Your task to perform on an android device: install app "WhatsApp Messenger" Image 0: 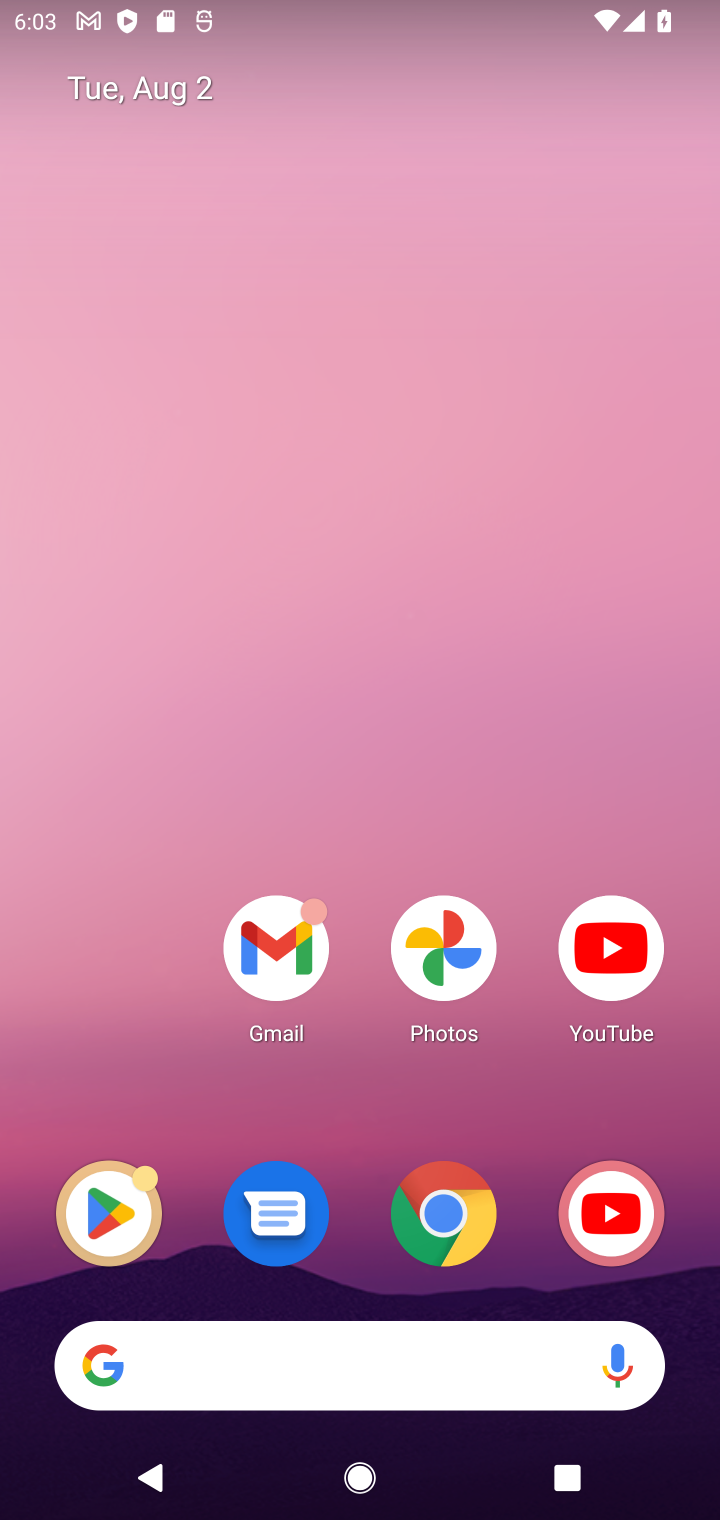
Step 0: click (142, 1202)
Your task to perform on an android device: install app "WhatsApp Messenger" Image 1: 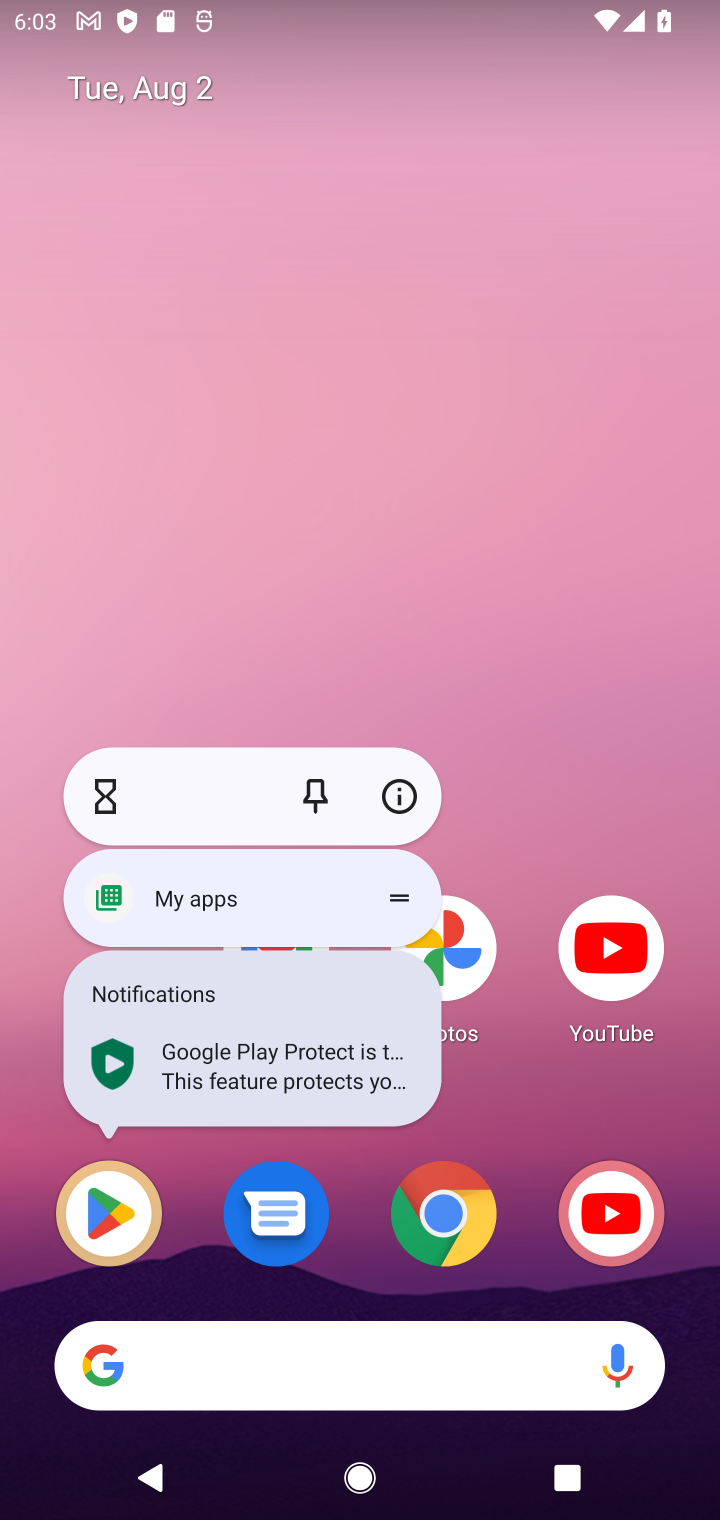
Step 1: click (142, 1202)
Your task to perform on an android device: install app "WhatsApp Messenger" Image 2: 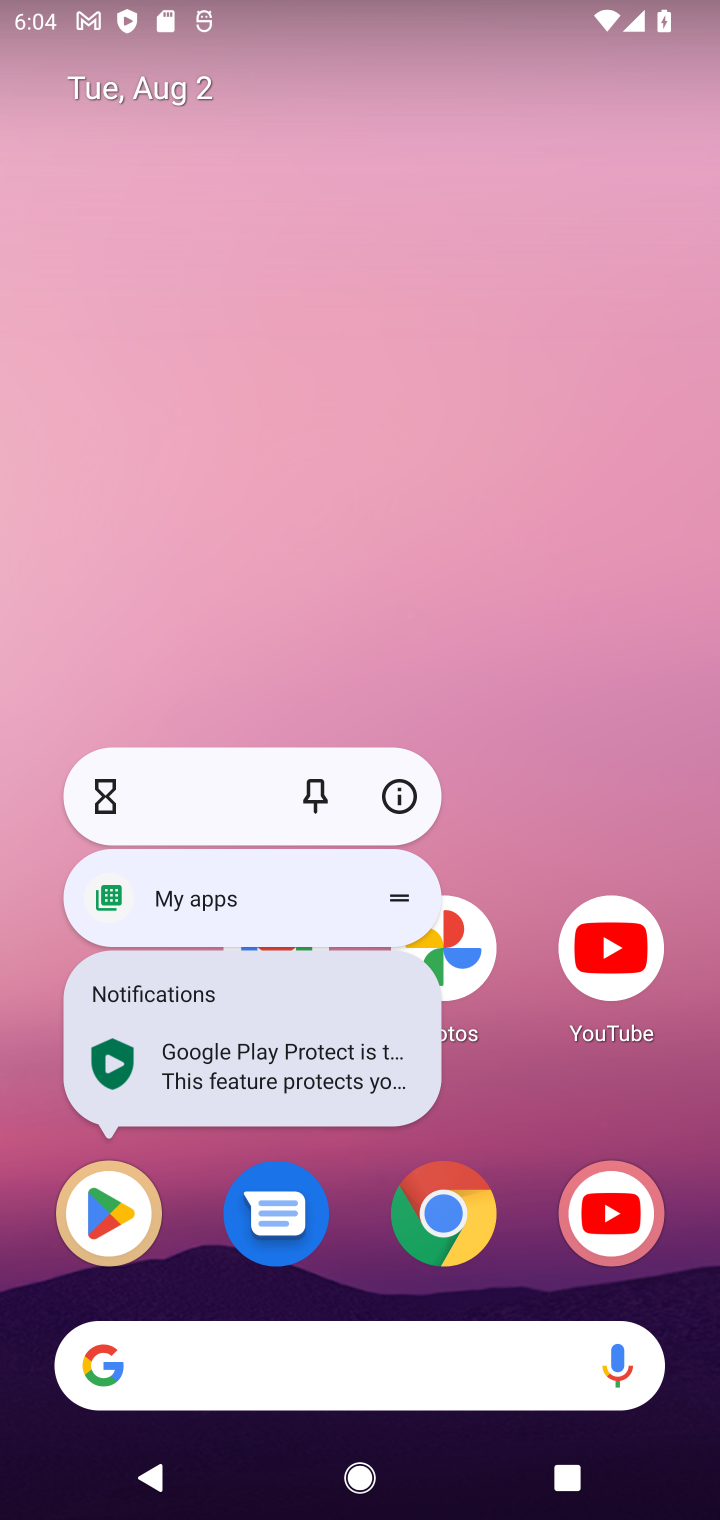
Step 2: click (63, 1216)
Your task to perform on an android device: install app "WhatsApp Messenger" Image 3: 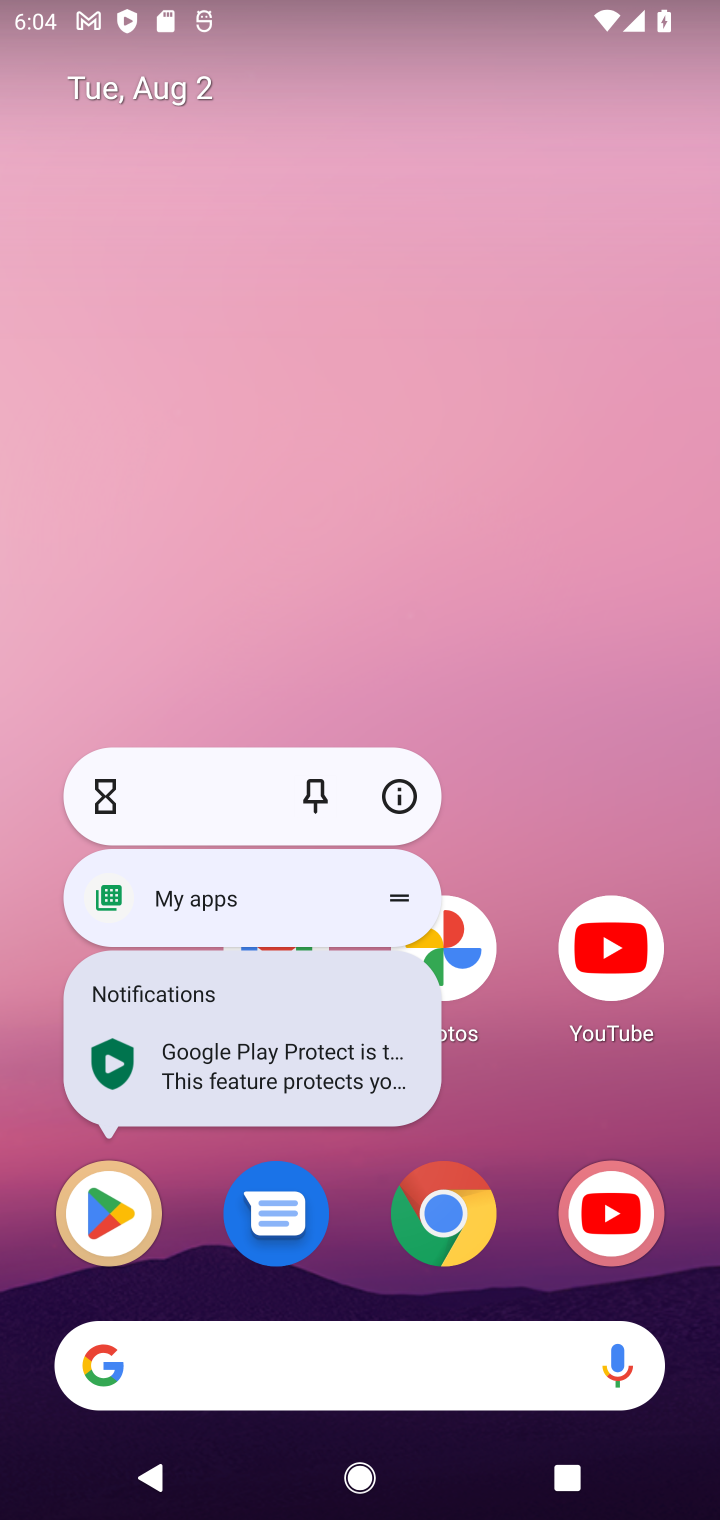
Step 3: click (136, 1231)
Your task to perform on an android device: install app "WhatsApp Messenger" Image 4: 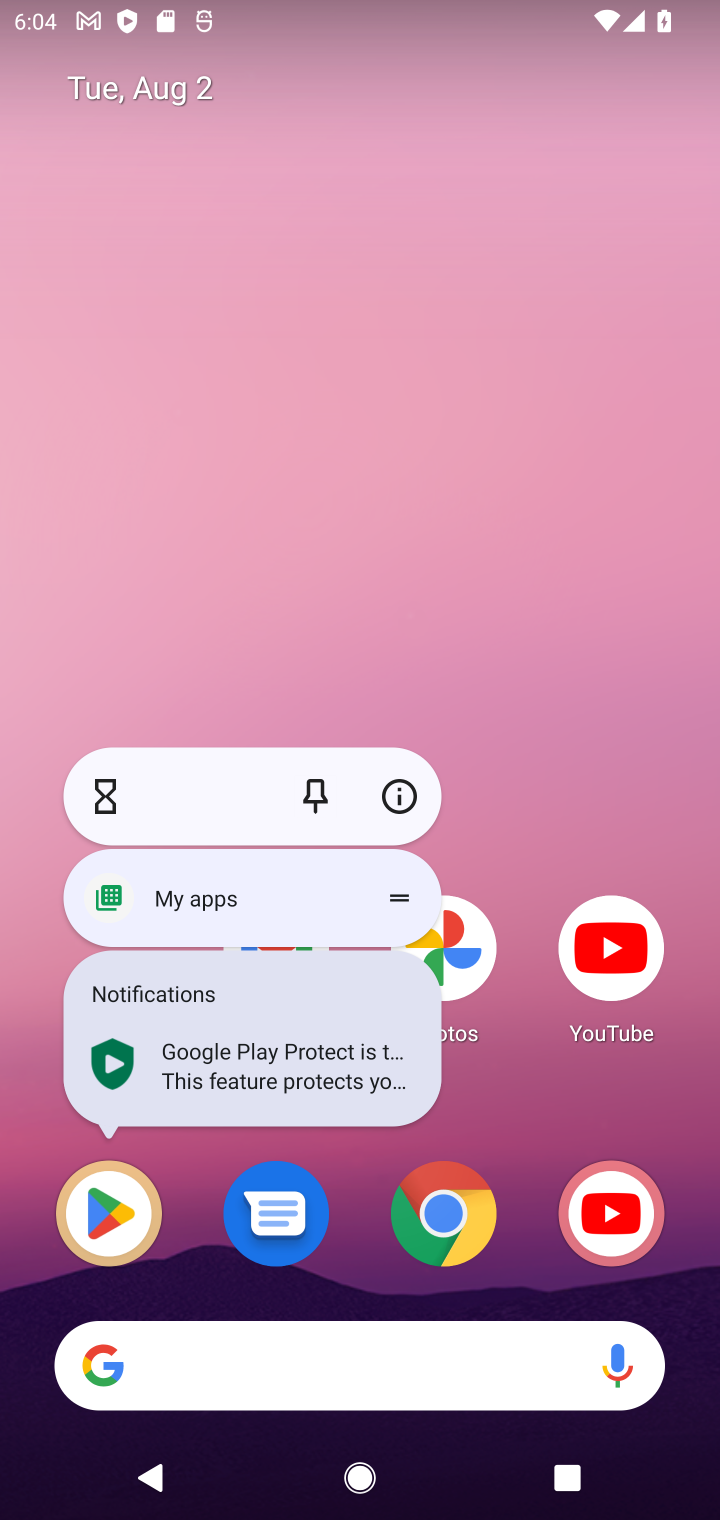
Step 4: click (127, 1223)
Your task to perform on an android device: install app "WhatsApp Messenger" Image 5: 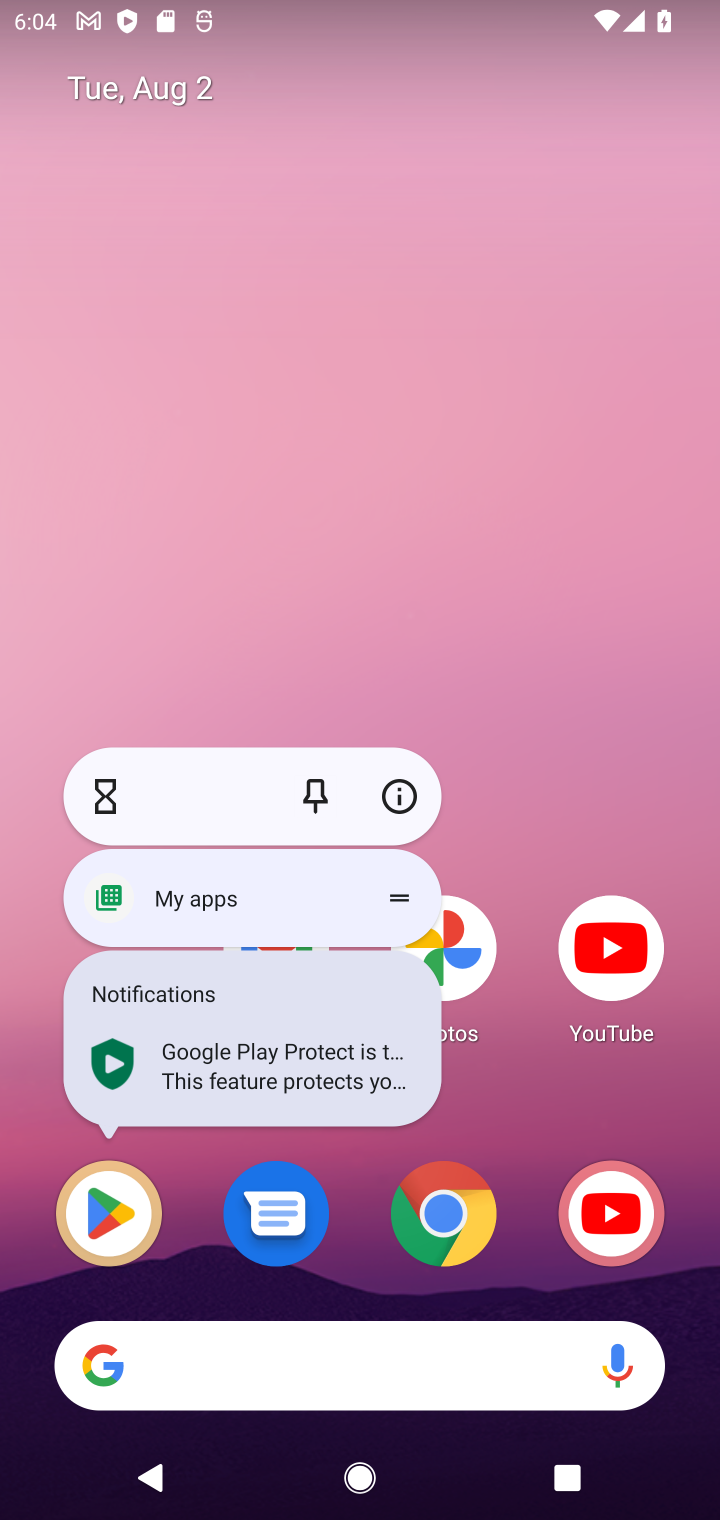
Step 5: click (116, 1247)
Your task to perform on an android device: install app "WhatsApp Messenger" Image 6: 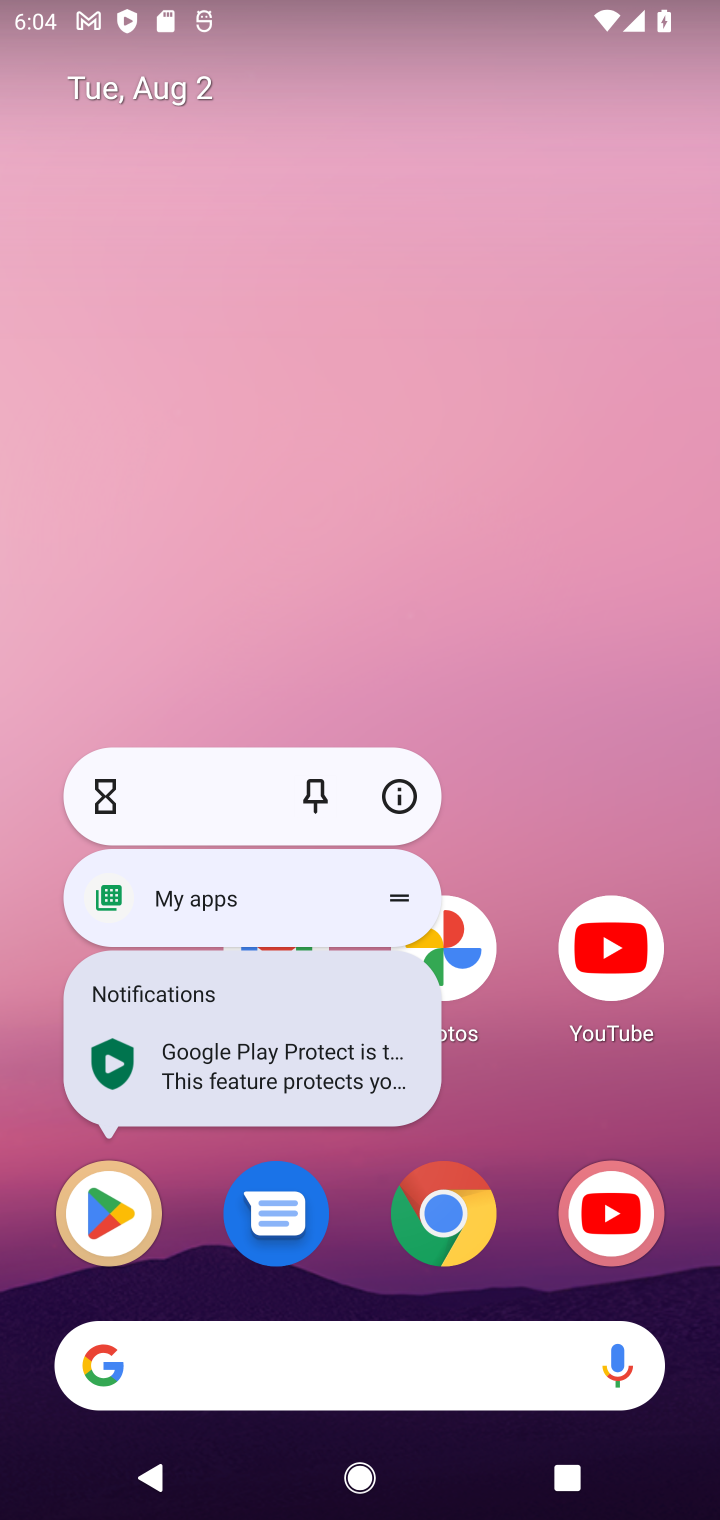
Step 6: click (65, 1205)
Your task to perform on an android device: install app "WhatsApp Messenger" Image 7: 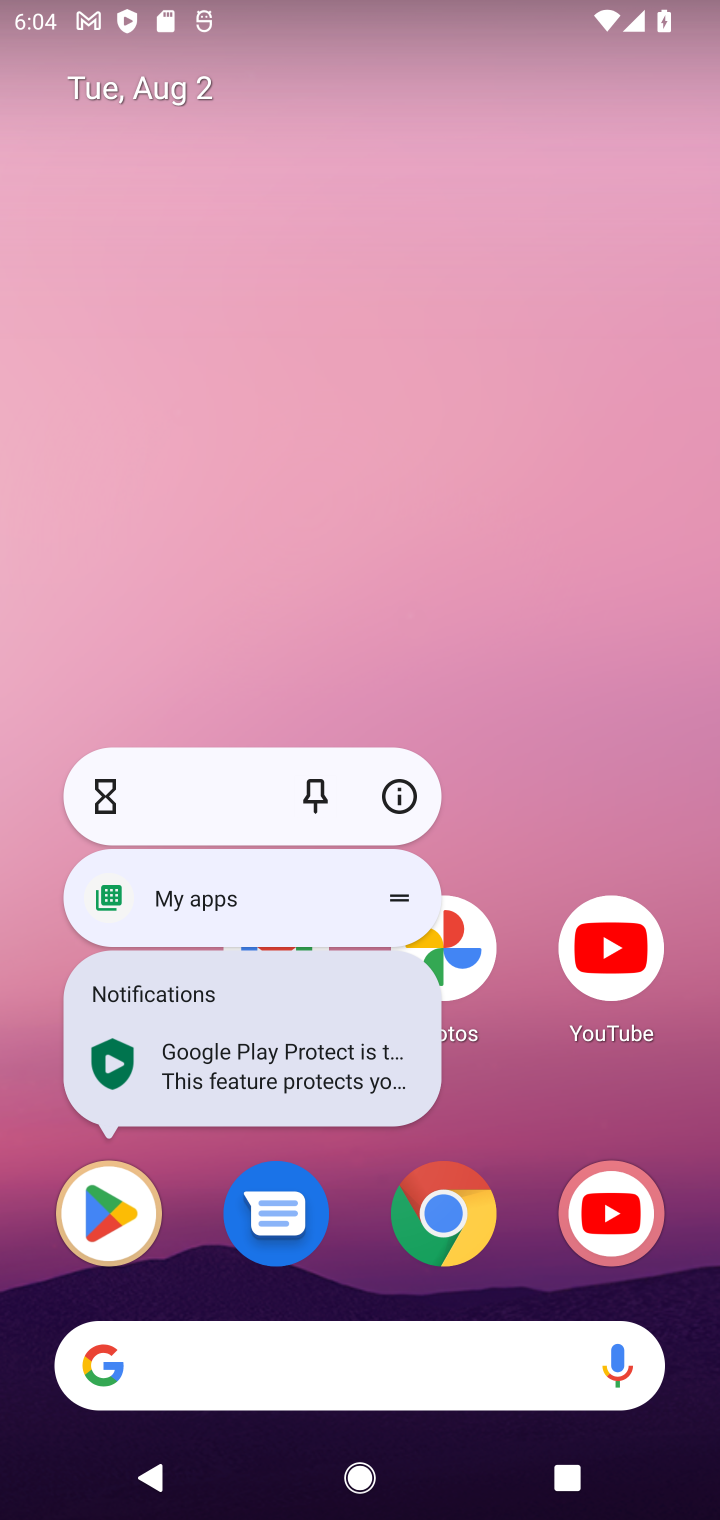
Step 7: click (144, 1251)
Your task to perform on an android device: install app "WhatsApp Messenger" Image 8: 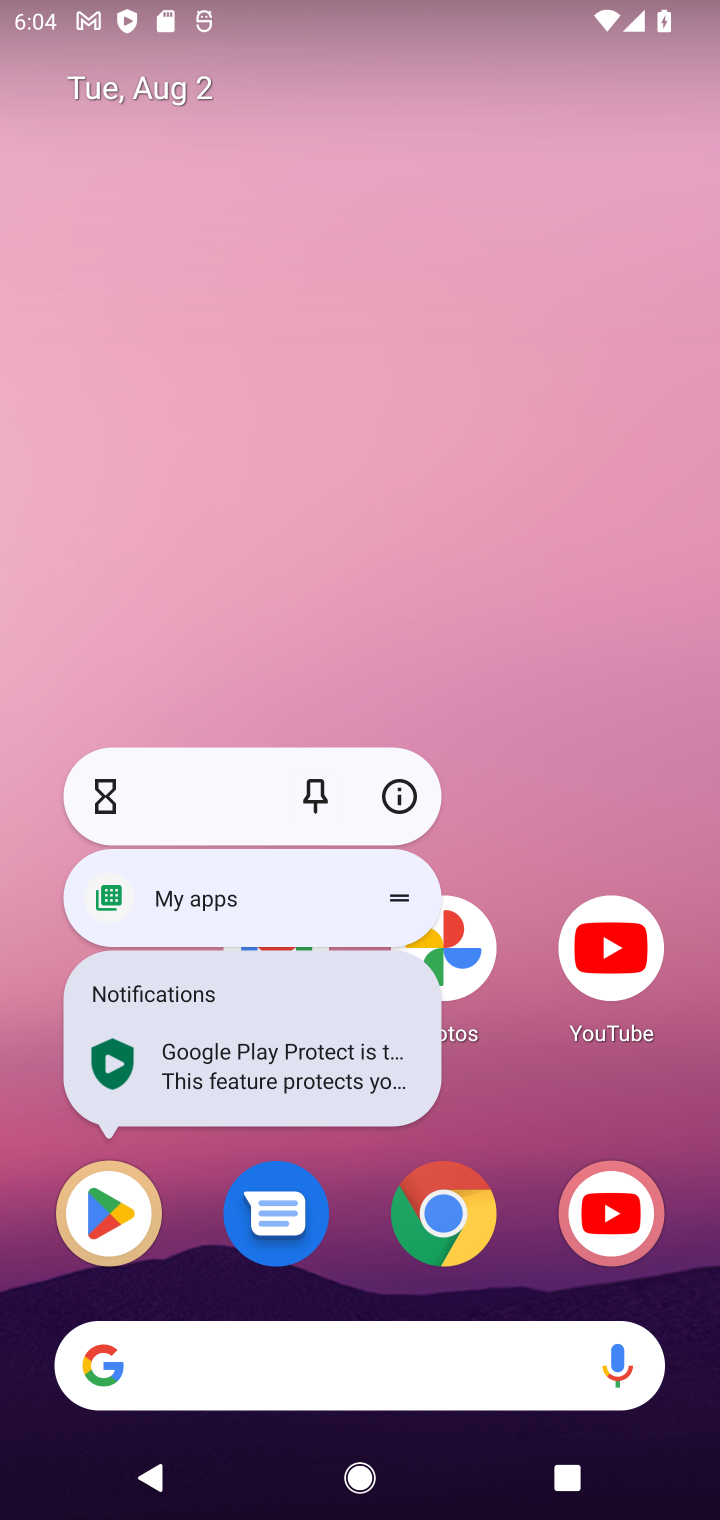
Step 8: click (121, 1248)
Your task to perform on an android device: install app "WhatsApp Messenger" Image 9: 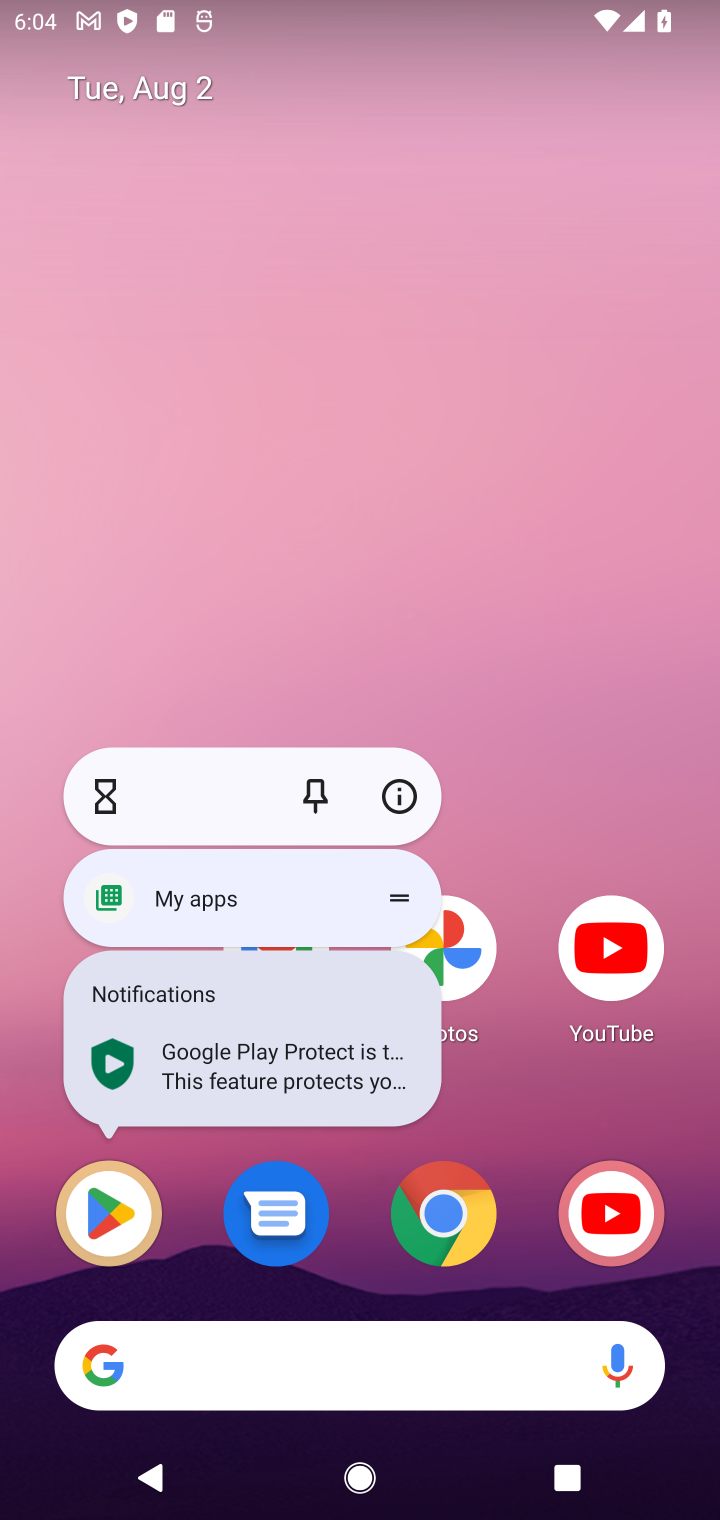
Step 9: click (74, 1237)
Your task to perform on an android device: install app "WhatsApp Messenger" Image 10: 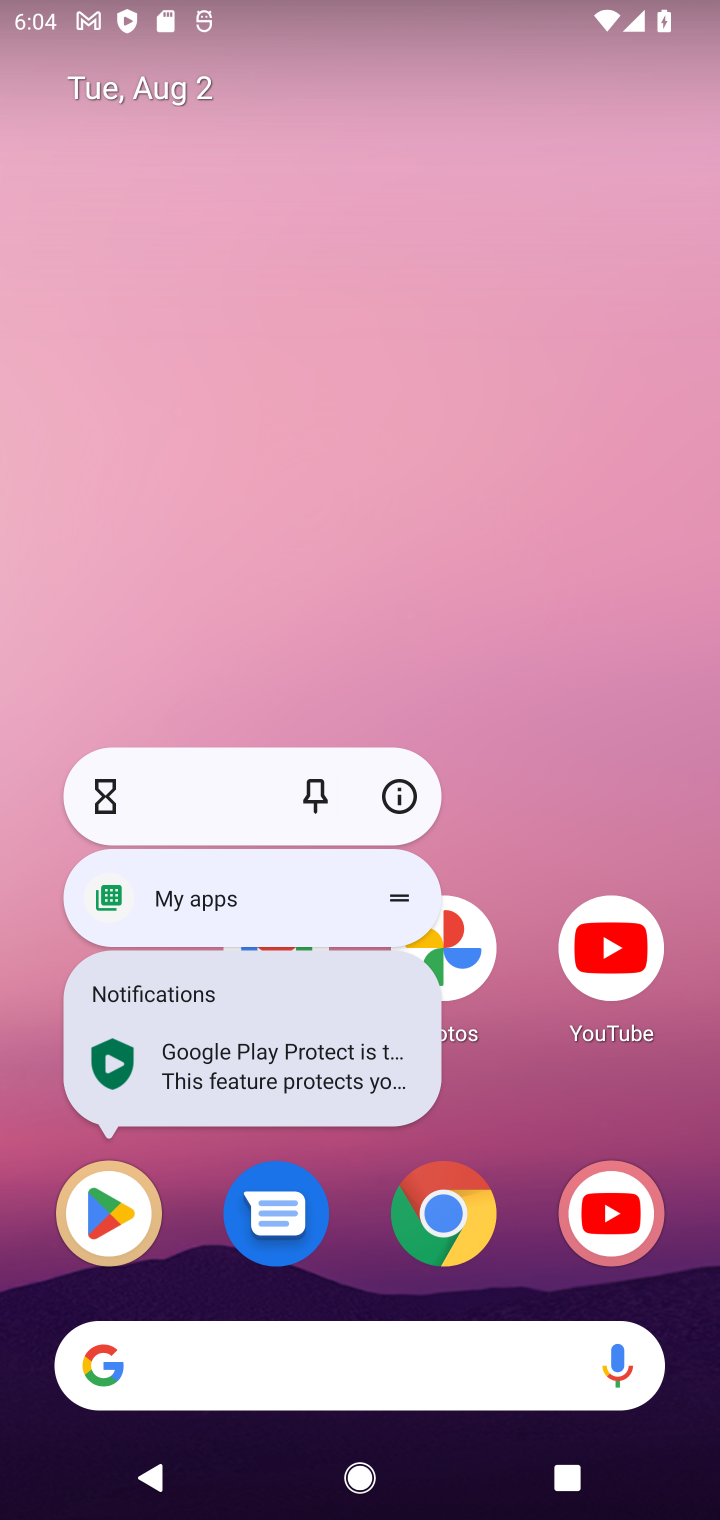
Step 10: click (163, 1207)
Your task to perform on an android device: install app "WhatsApp Messenger" Image 11: 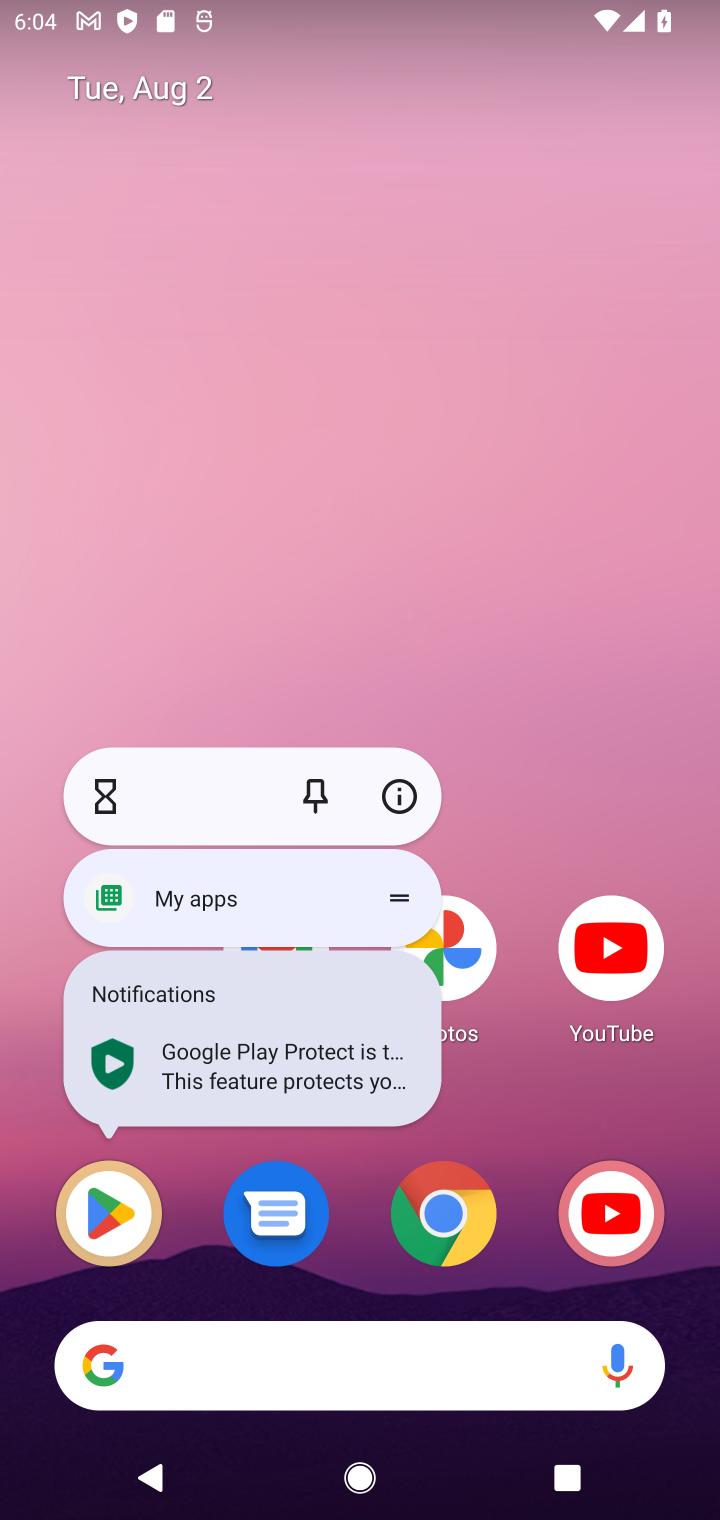
Step 11: click (103, 1219)
Your task to perform on an android device: install app "WhatsApp Messenger" Image 12: 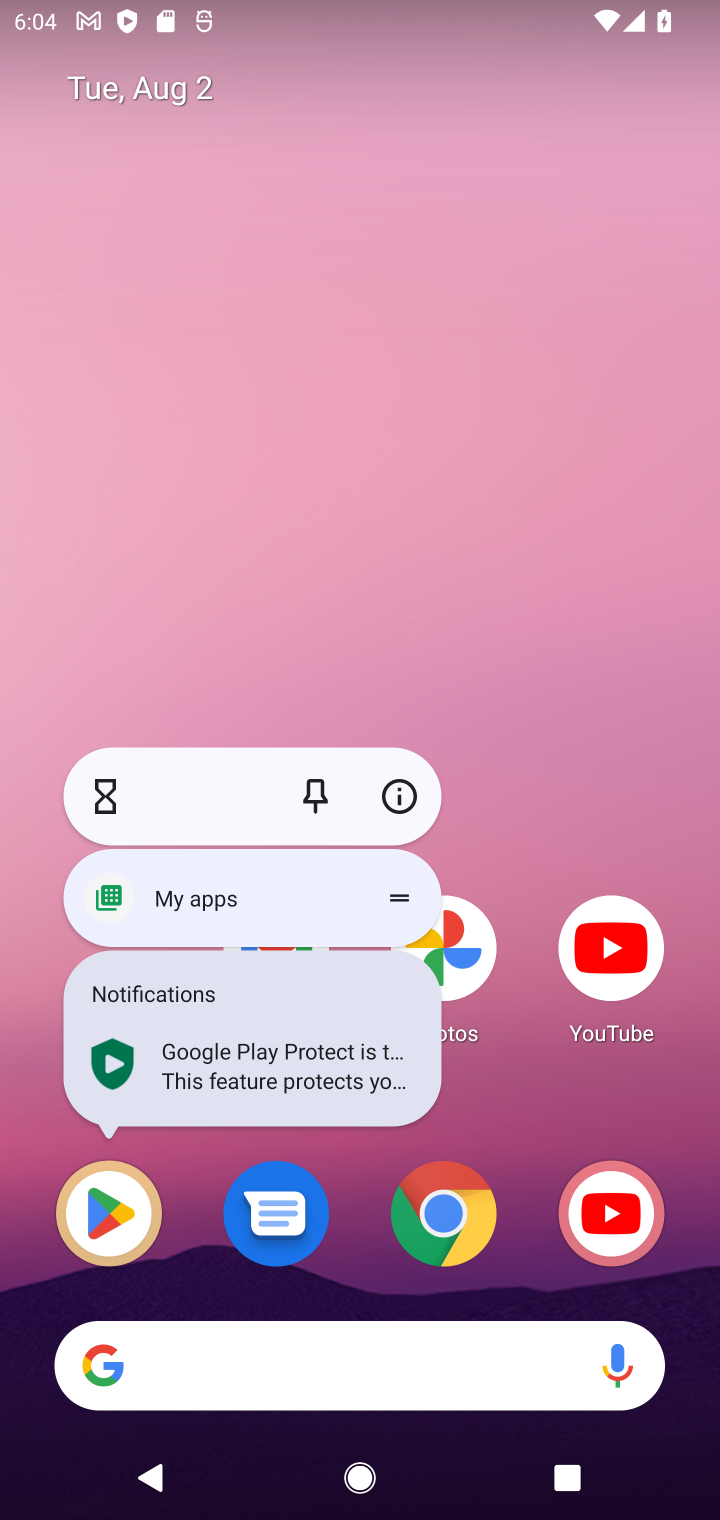
Step 12: click (99, 1211)
Your task to perform on an android device: install app "WhatsApp Messenger" Image 13: 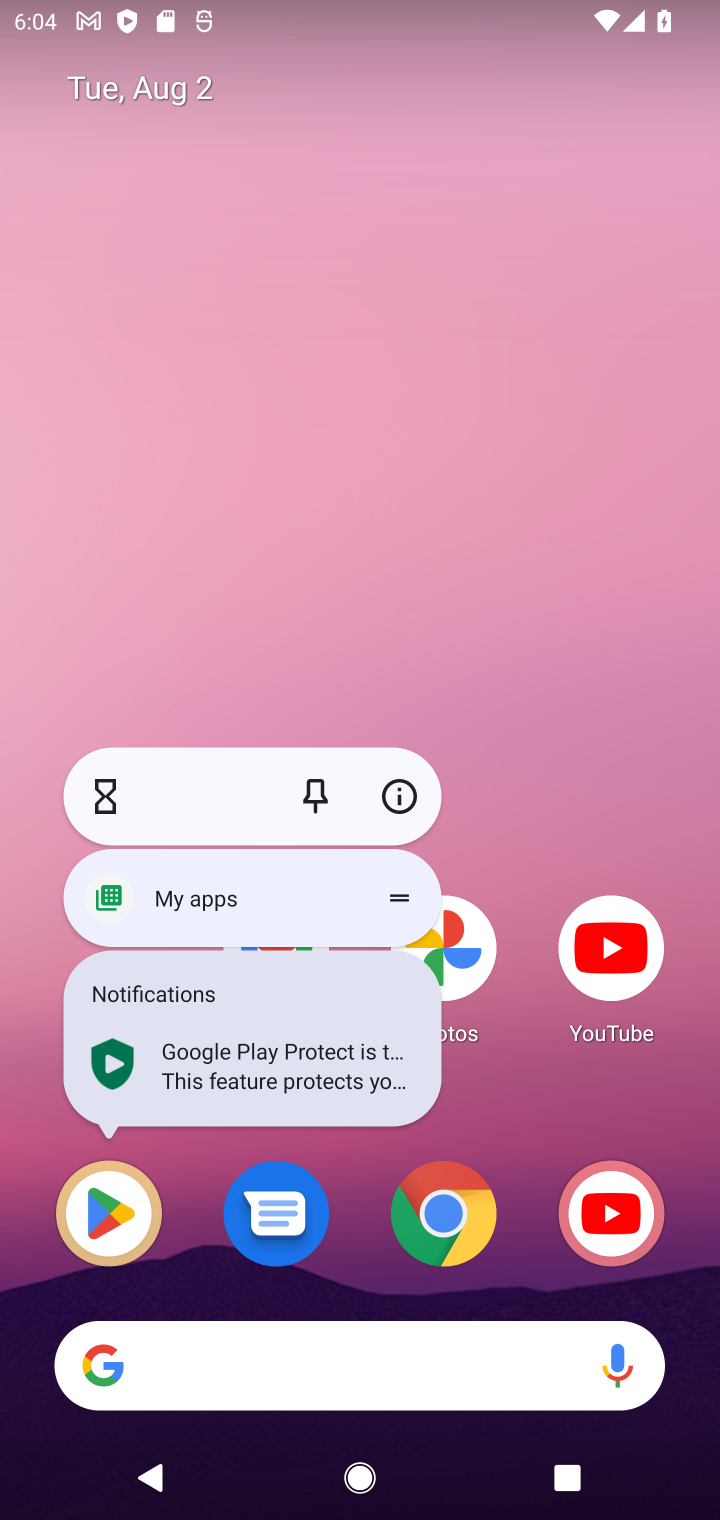
Step 13: click (98, 1240)
Your task to perform on an android device: install app "WhatsApp Messenger" Image 14: 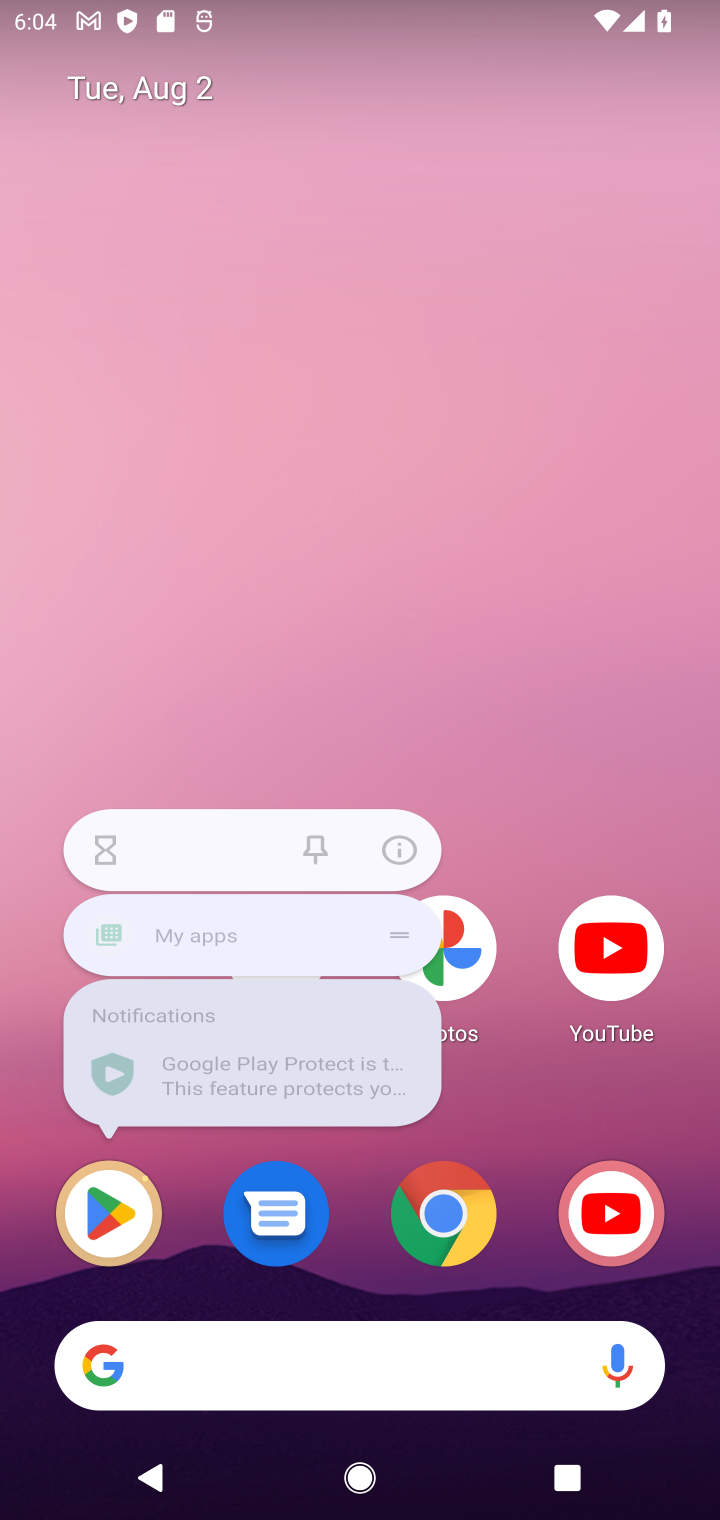
Step 14: click (297, 1387)
Your task to perform on an android device: install app "WhatsApp Messenger" Image 15: 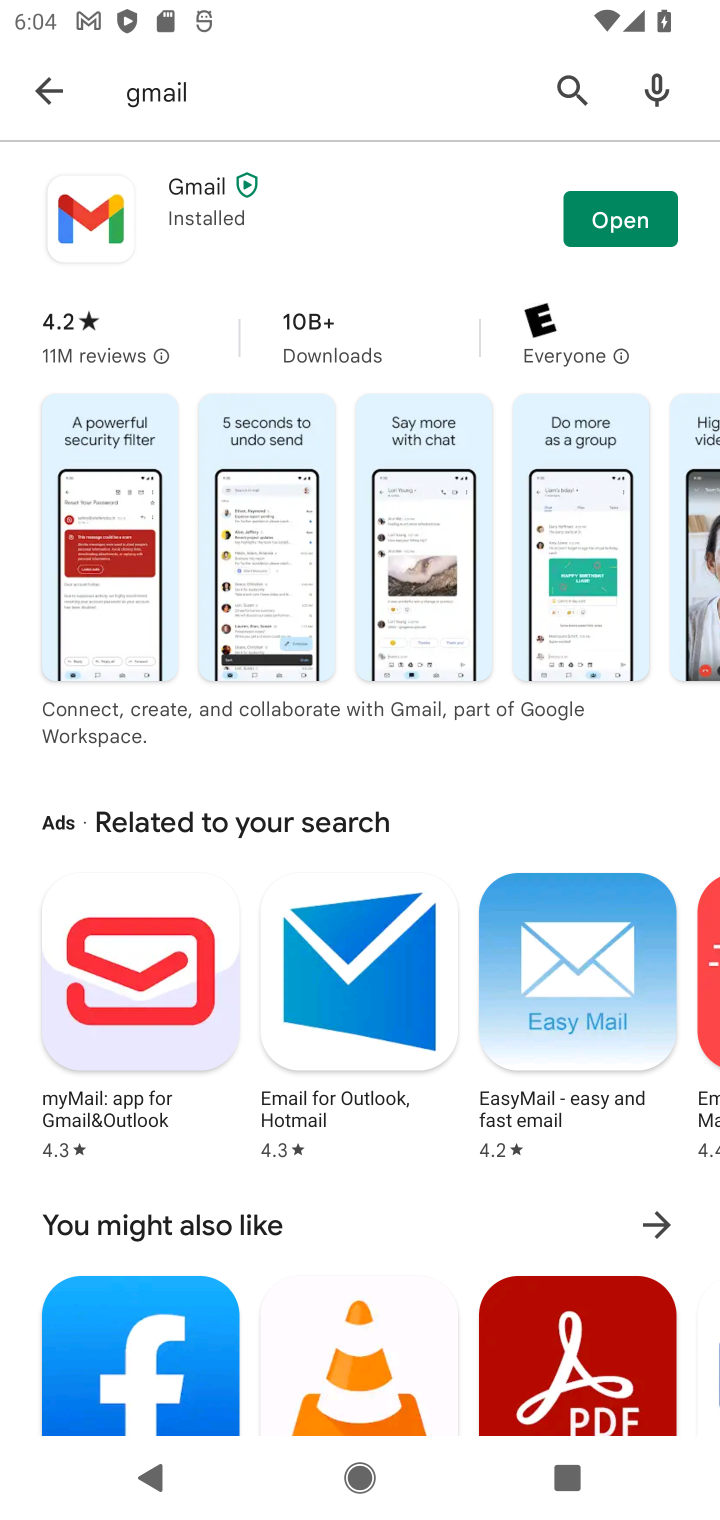
Step 15: click (580, 79)
Your task to perform on an android device: install app "WhatsApp Messenger" Image 16: 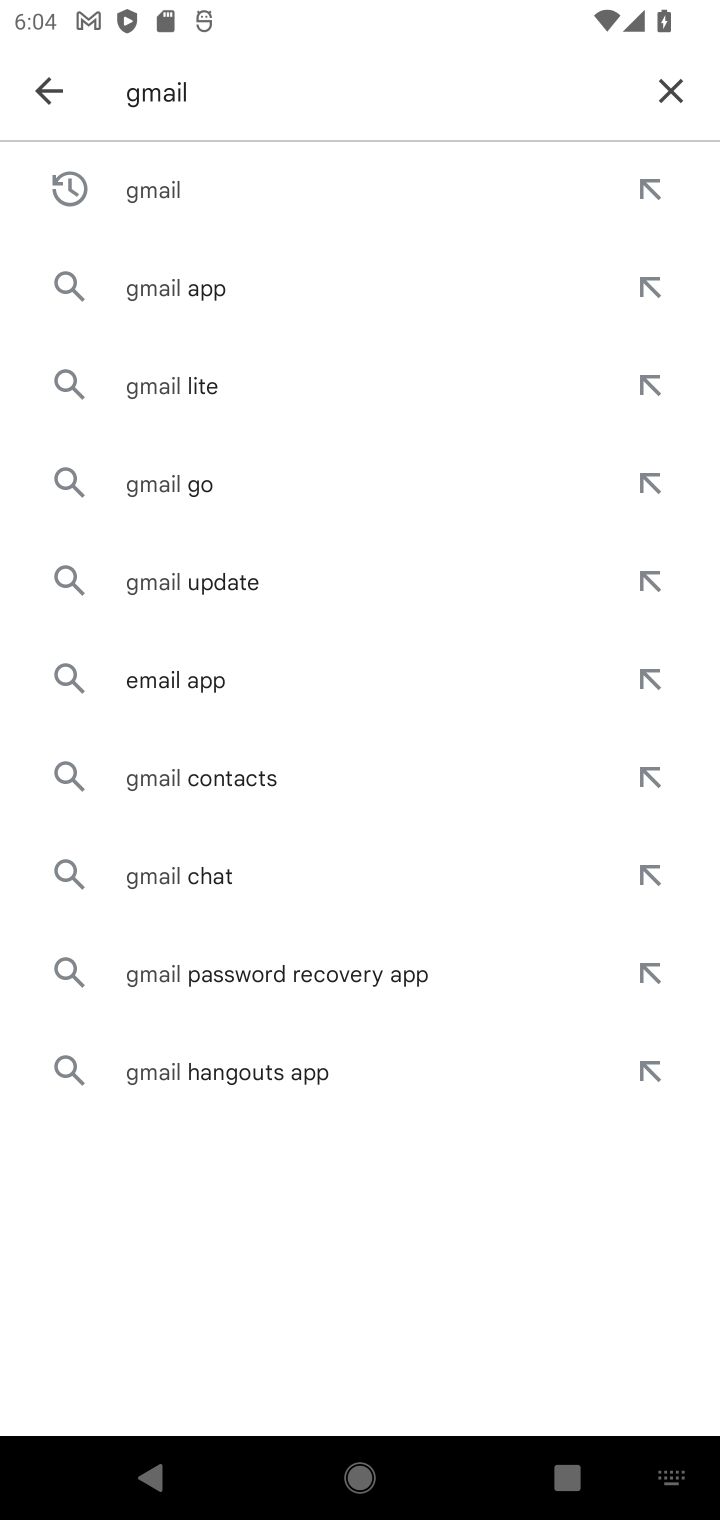
Step 16: click (677, 94)
Your task to perform on an android device: install app "WhatsApp Messenger" Image 17: 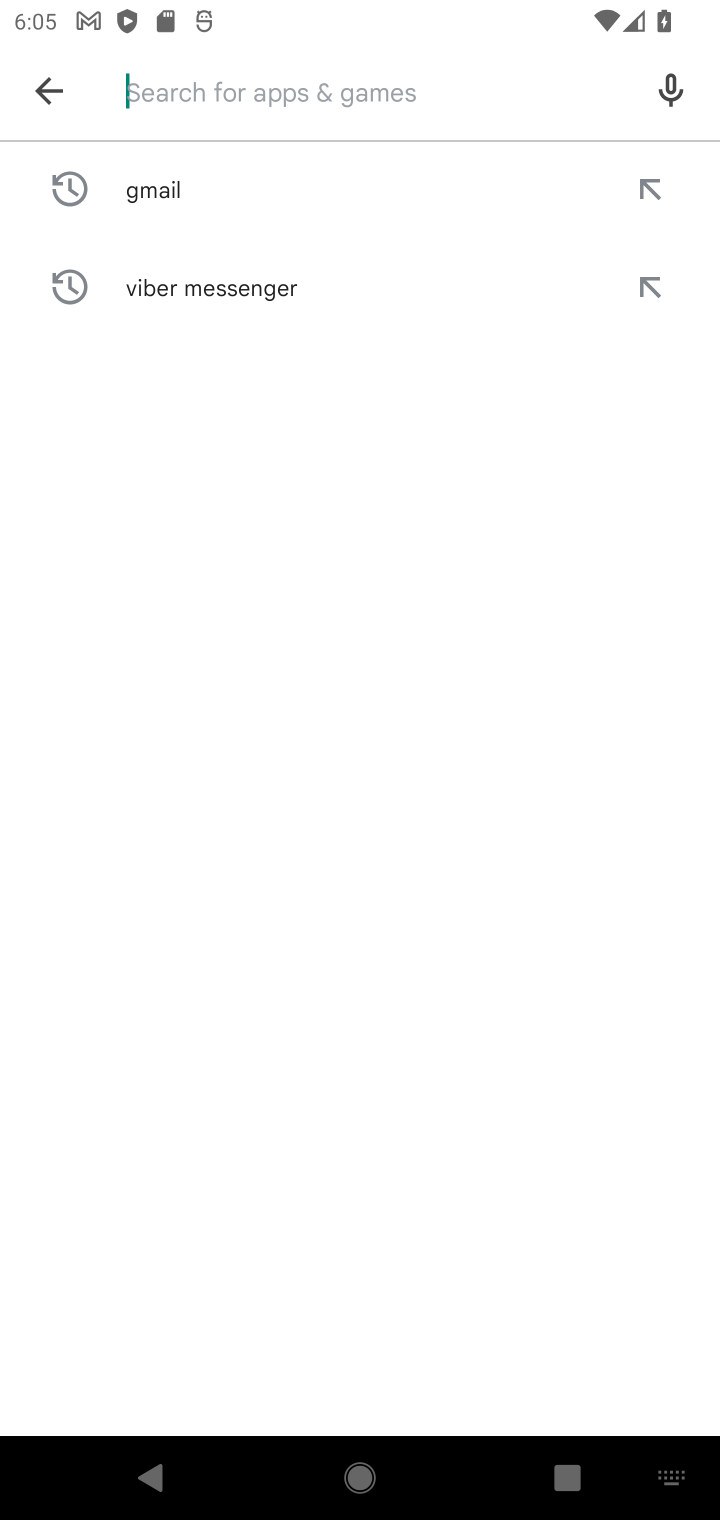
Step 17: click (470, 98)
Your task to perform on an android device: install app "WhatsApp Messenger" Image 18: 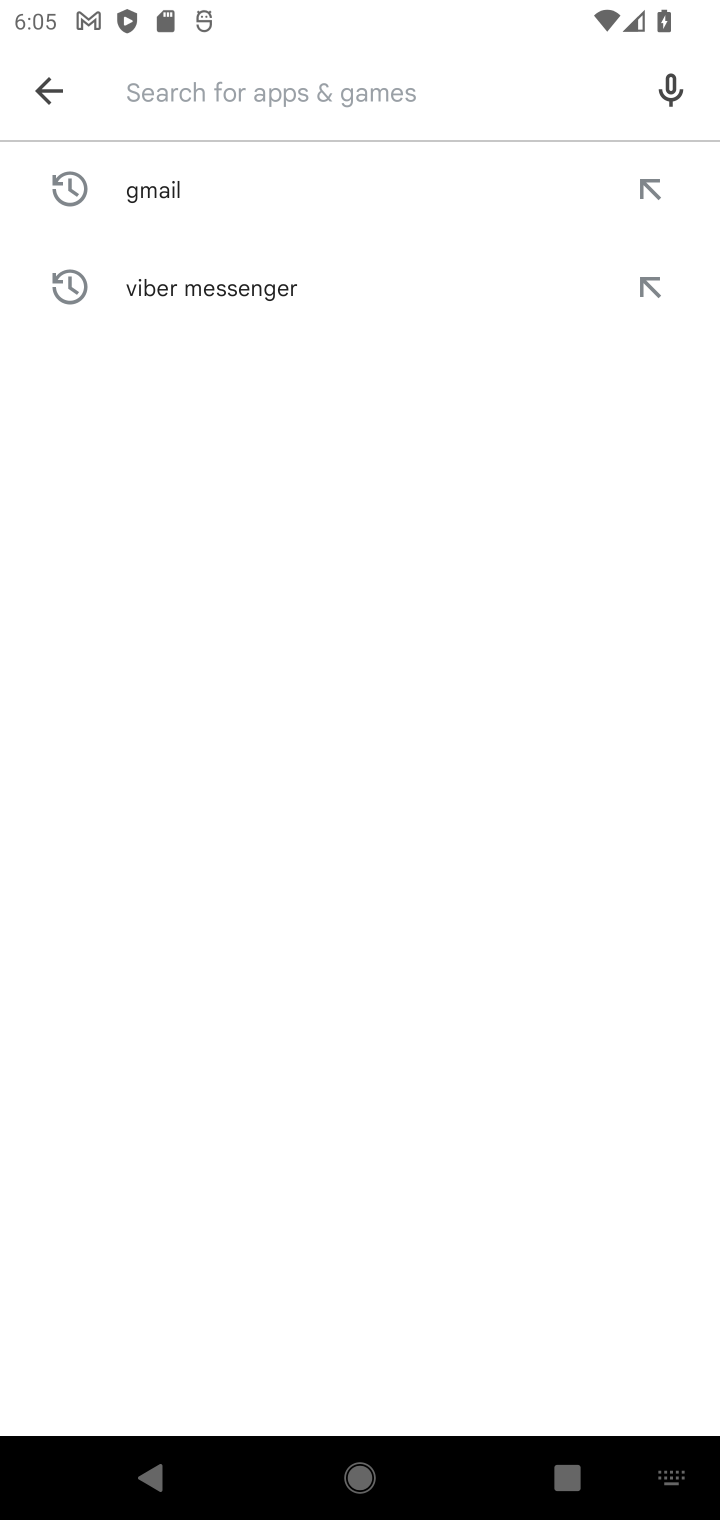
Step 18: type "WhatsApp Messenger"
Your task to perform on an android device: install app "WhatsApp Messenger" Image 19: 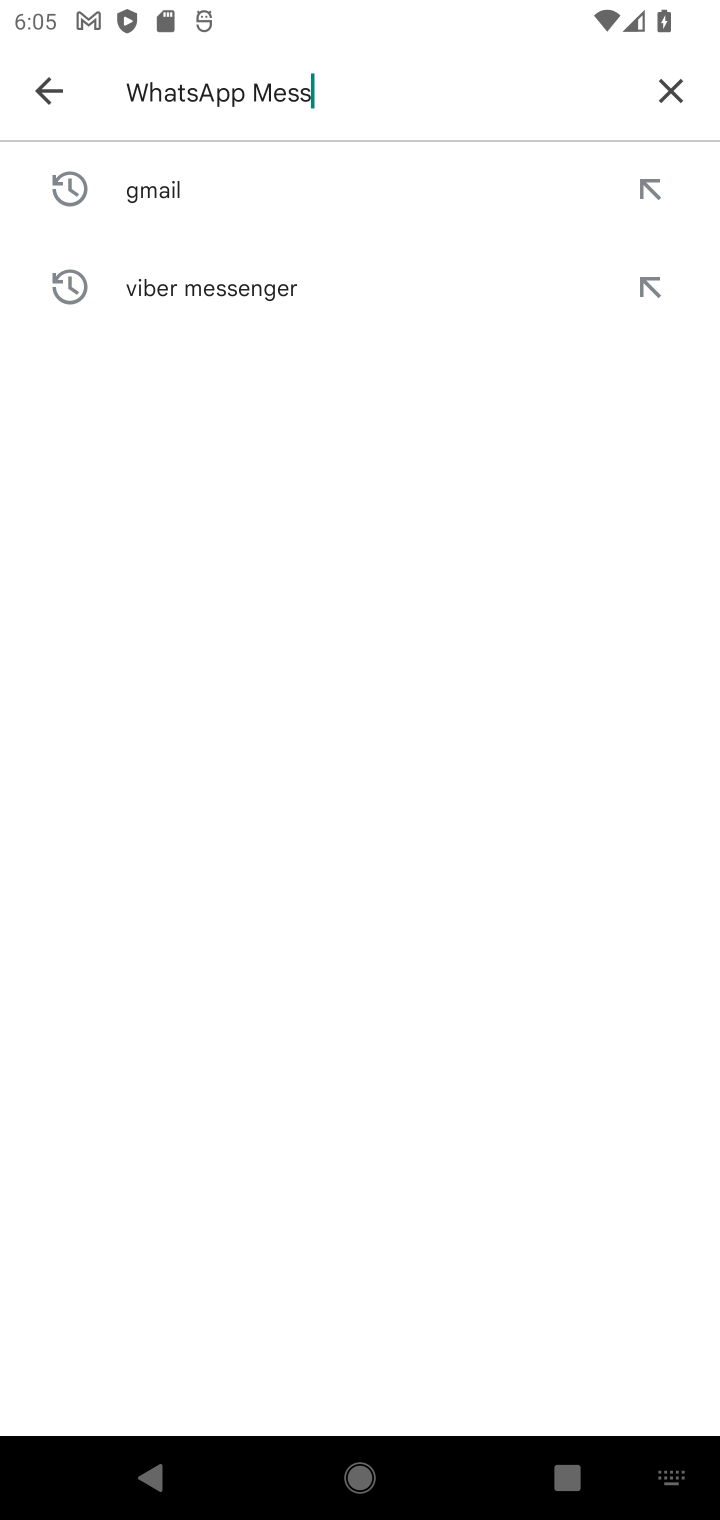
Step 19: type ""
Your task to perform on an android device: install app "WhatsApp Messenger" Image 20: 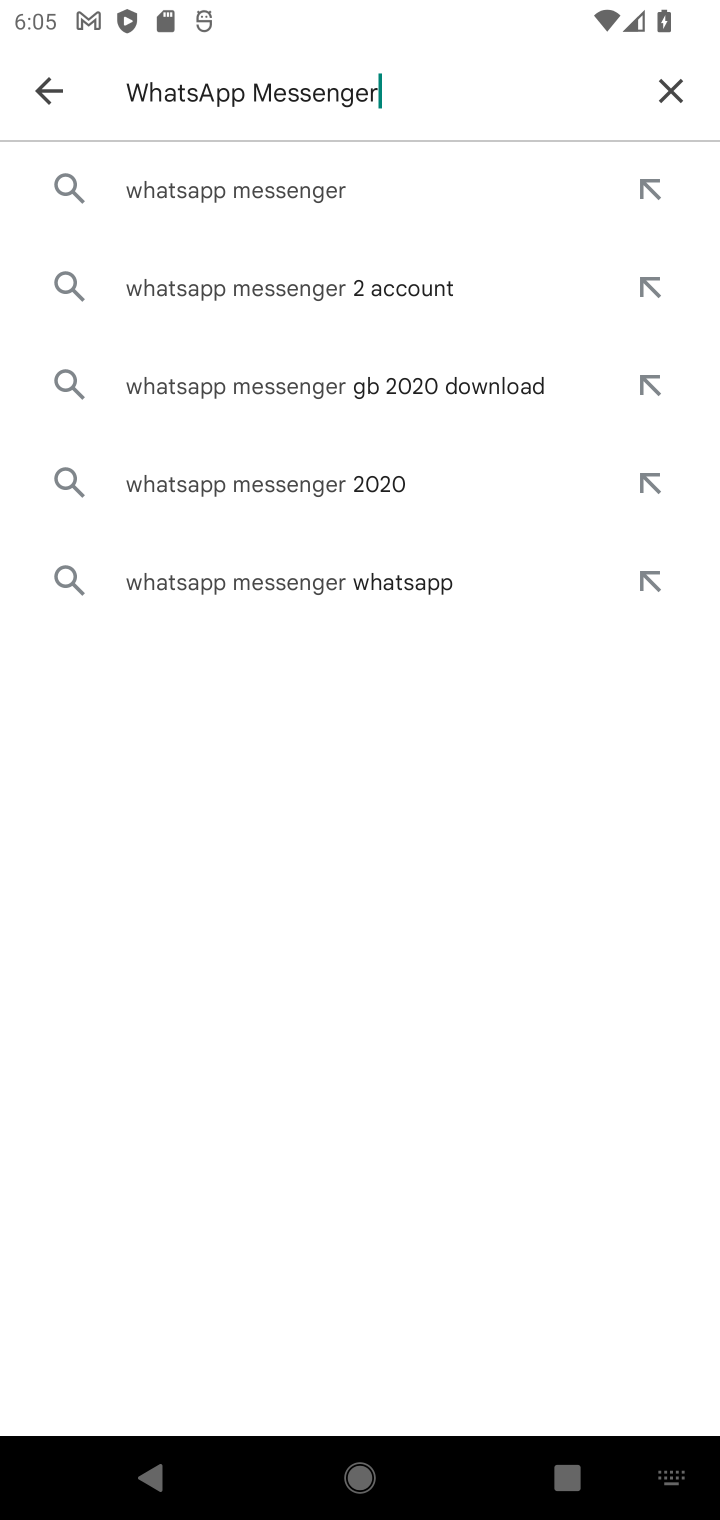
Step 20: click (360, 185)
Your task to perform on an android device: install app "WhatsApp Messenger" Image 21: 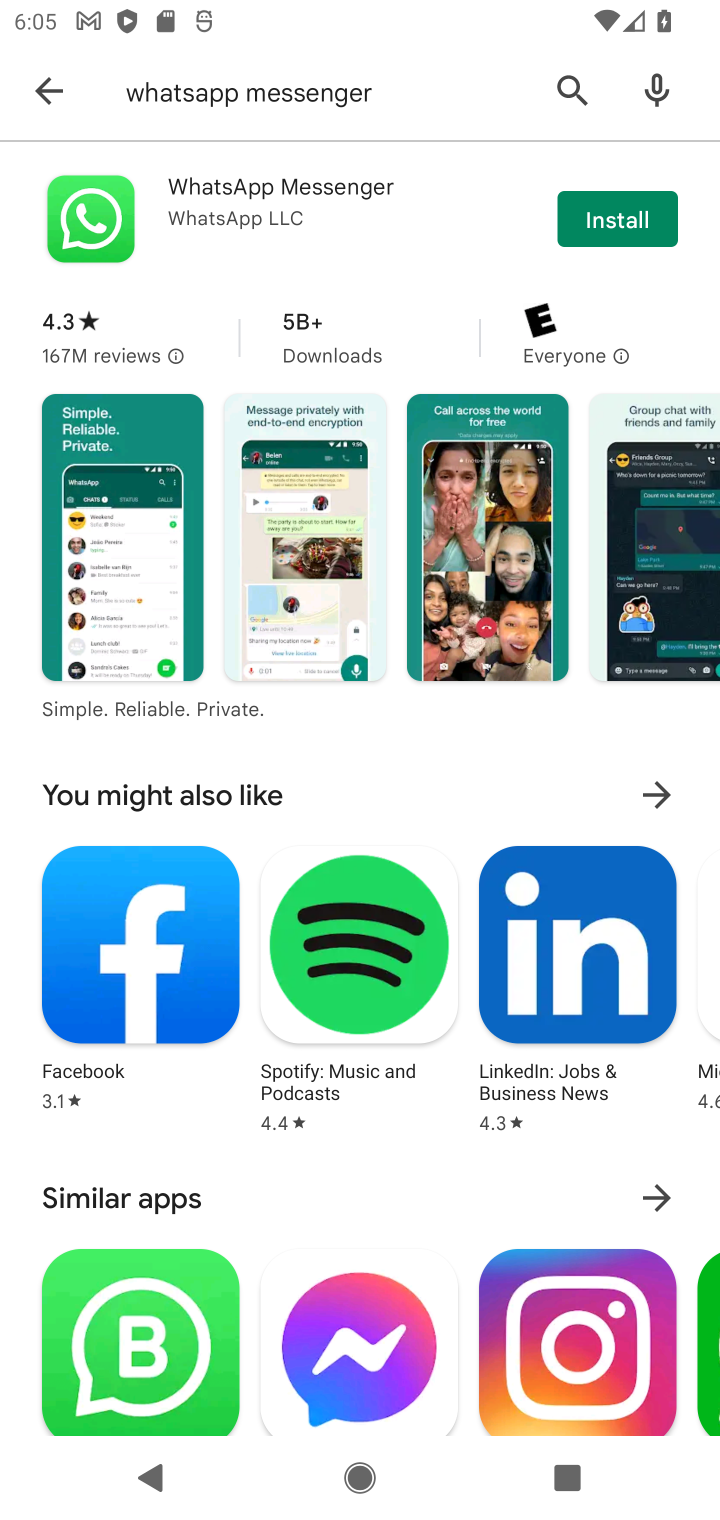
Step 21: click (654, 207)
Your task to perform on an android device: install app "WhatsApp Messenger" Image 22: 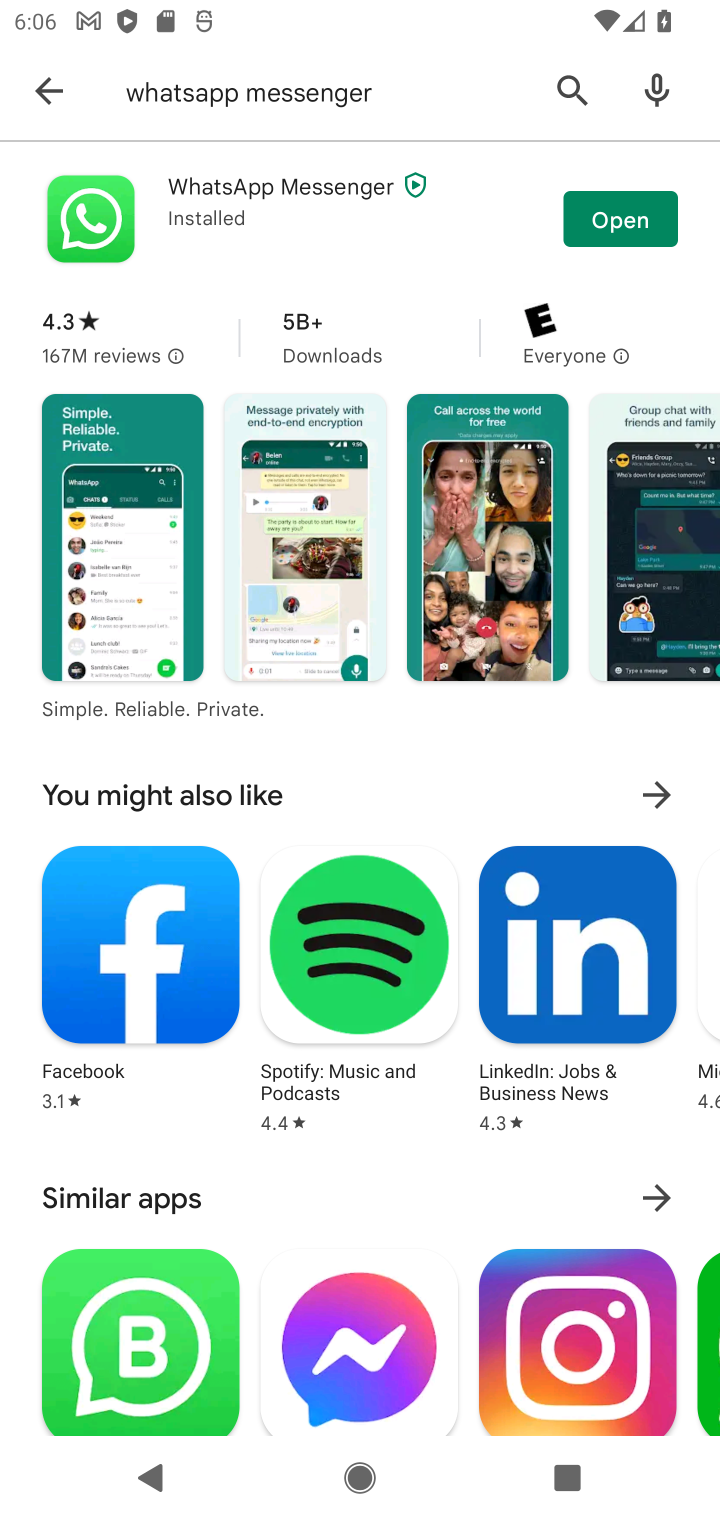
Step 22: task complete